Your task to perform on an android device: Open sound settings Image 0: 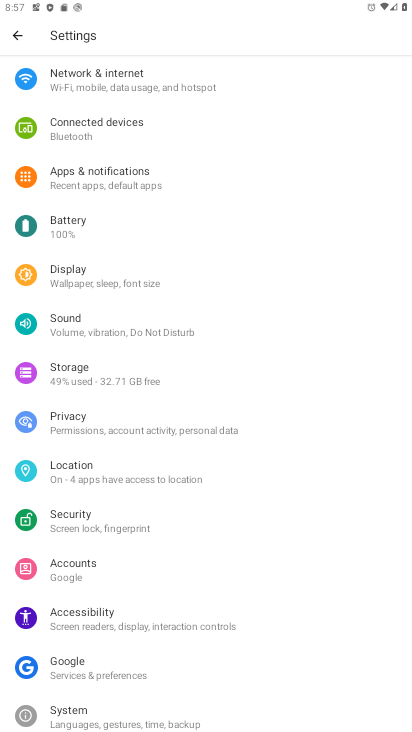
Step 0: click (64, 325)
Your task to perform on an android device: Open sound settings Image 1: 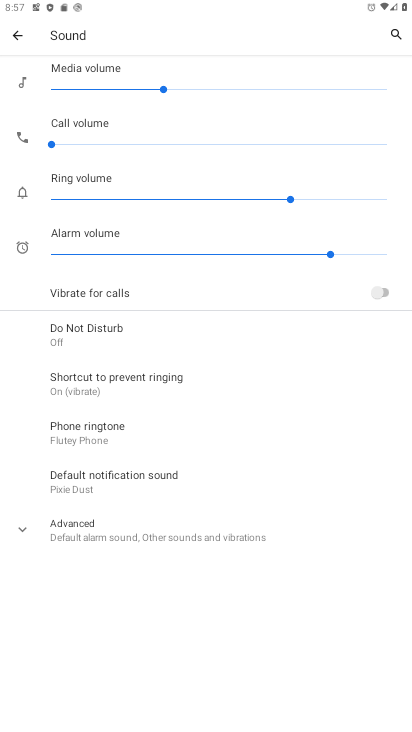
Step 1: task complete